Your task to perform on an android device: uninstall "McDonald's" Image 0: 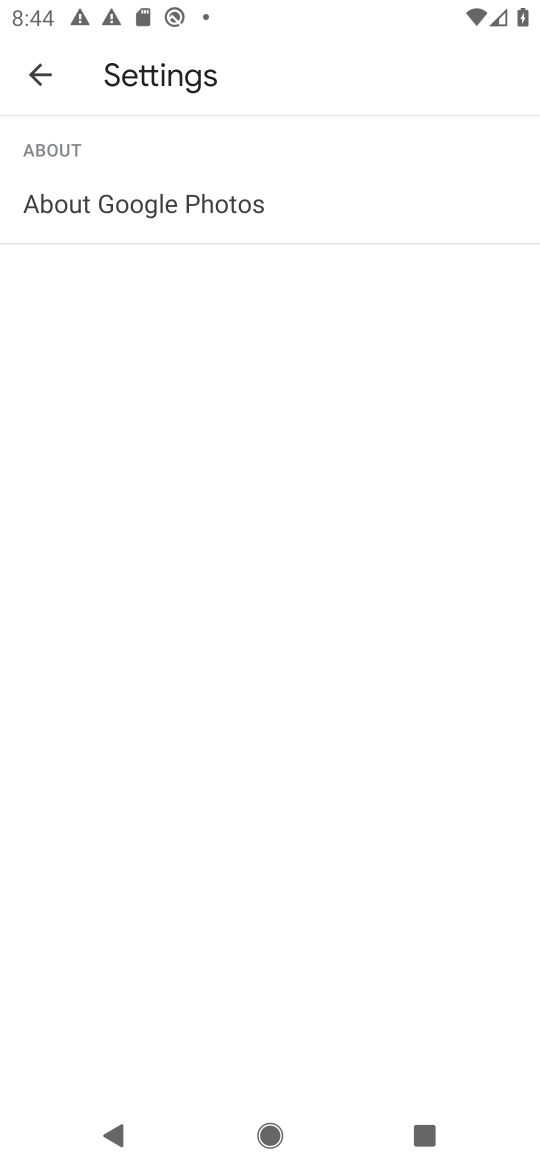
Step 0: press home button
Your task to perform on an android device: uninstall "McDonald's" Image 1: 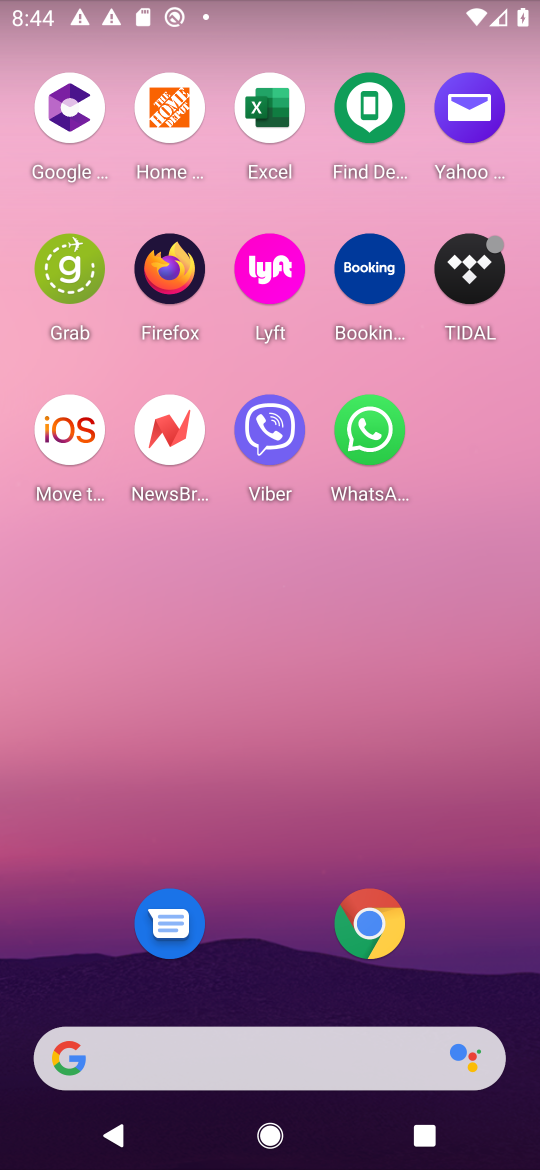
Step 1: drag from (499, 814) to (429, 160)
Your task to perform on an android device: uninstall "McDonald's" Image 2: 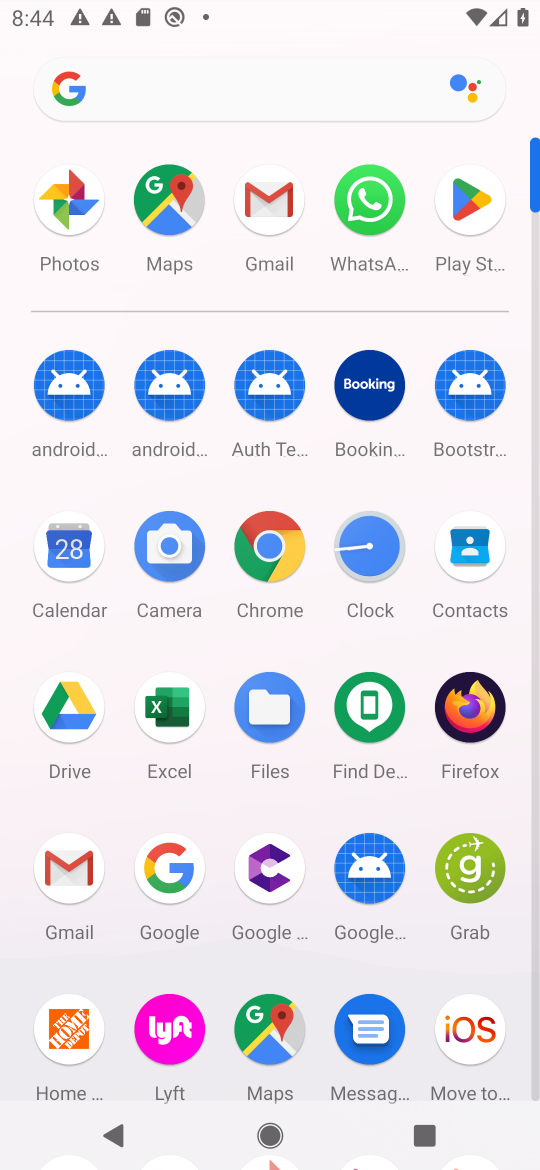
Step 2: click (475, 198)
Your task to perform on an android device: uninstall "McDonald's" Image 3: 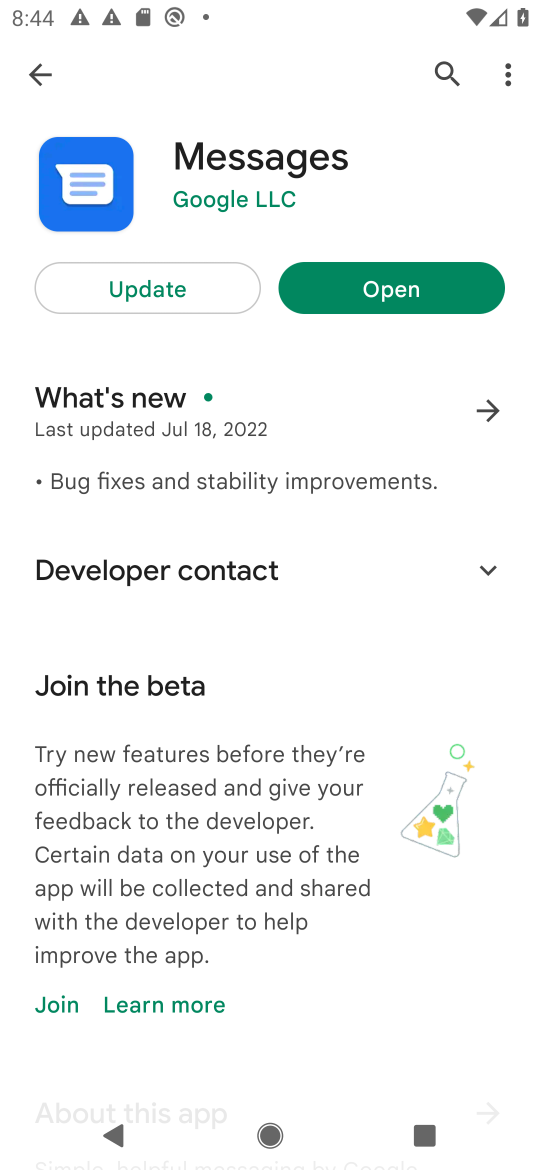
Step 3: click (442, 73)
Your task to perform on an android device: uninstall "McDonald's" Image 4: 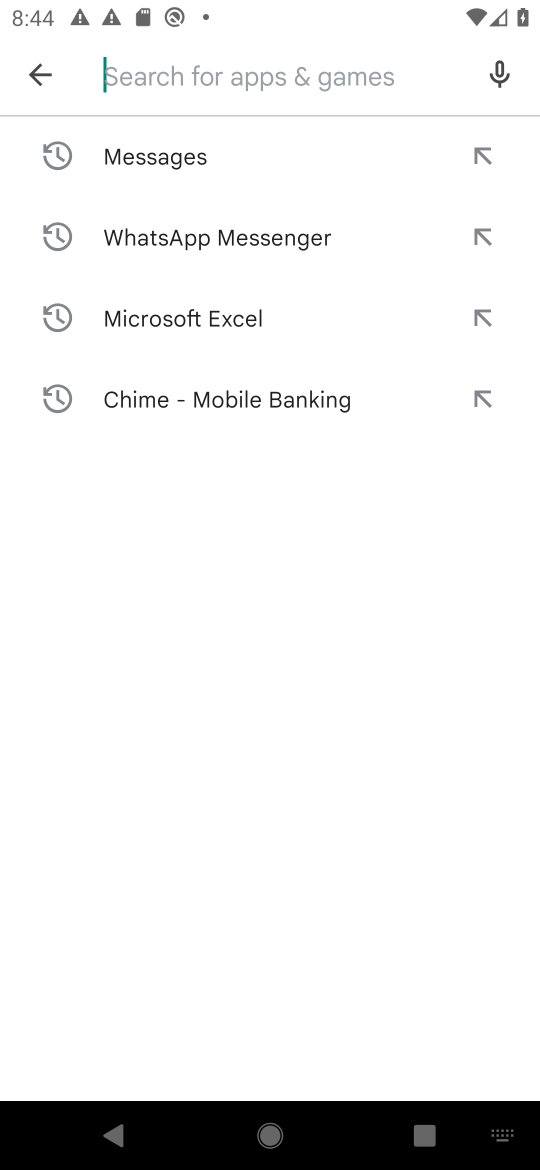
Step 4: type "McDonald's"
Your task to perform on an android device: uninstall "McDonald's" Image 5: 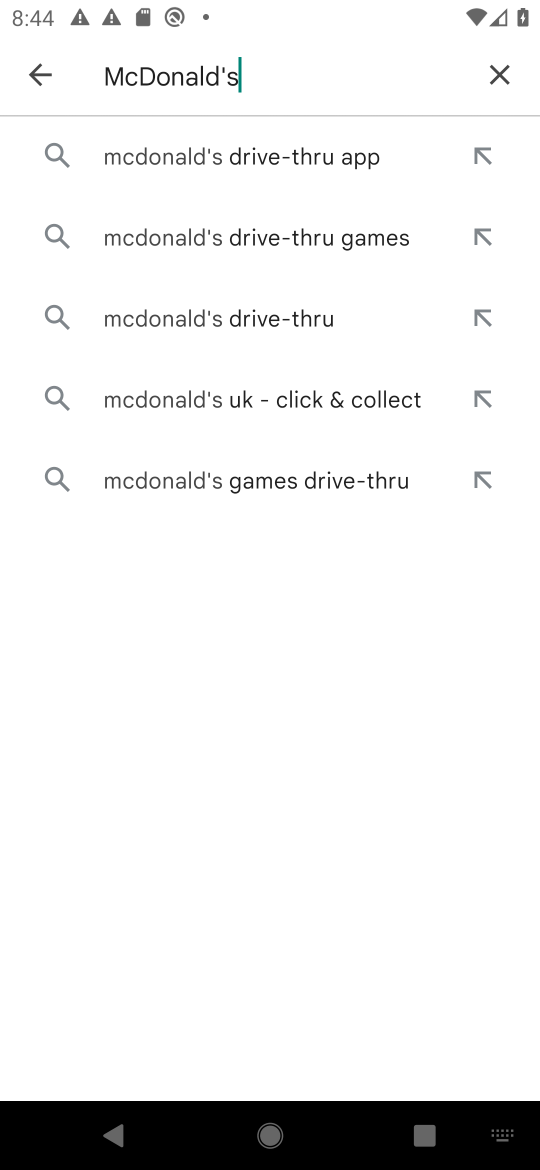
Step 5: press enter
Your task to perform on an android device: uninstall "McDonald's" Image 6: 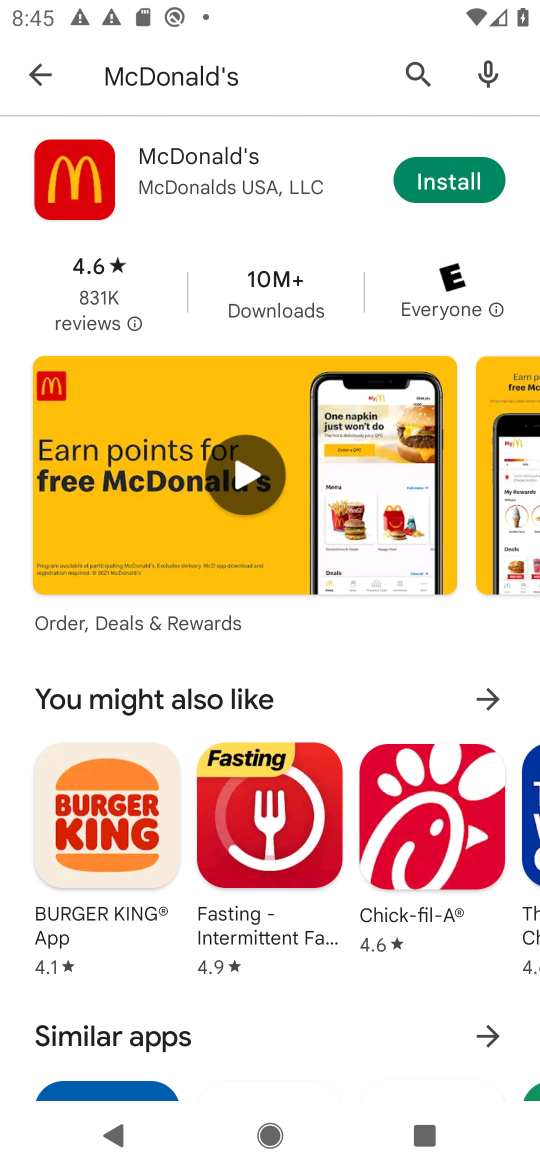
Step 6: task complete